Your task to perform on an android device: turn off data saver in the chrome app Image 0: 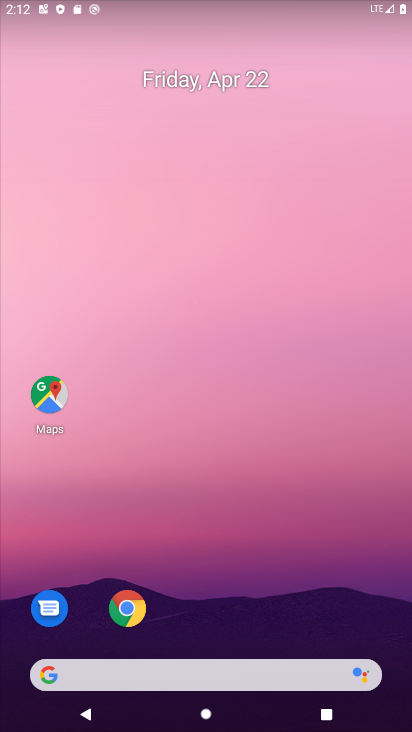
Step 0: drag from (236, 659) to (228, 244)
Your task to perform on an android device: turn off data saver in the chrome app Image 1: 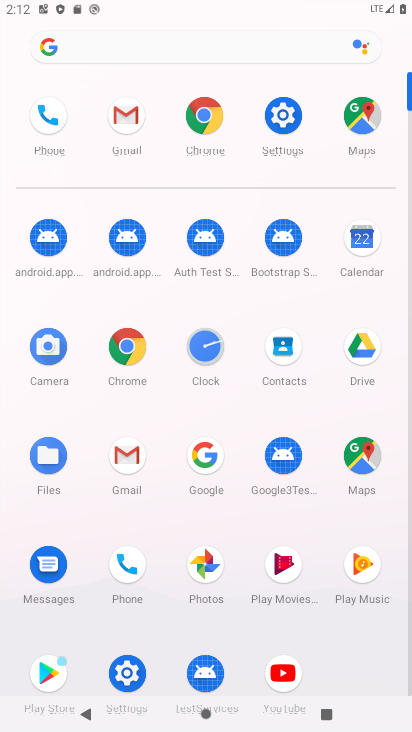
Step 1: click (132, 335)
Your task to perform on an android device: turn off data saver in the chrome app Image 2: 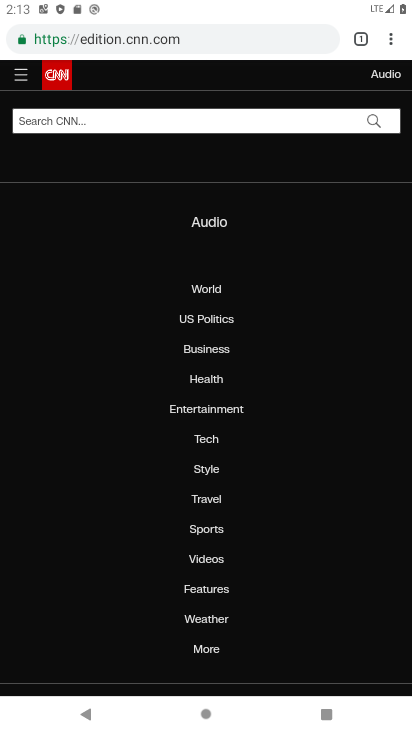
Step 2: click (384, 42)
Your task to perform on an android device: turn off data saver in the chrome app Image 3: 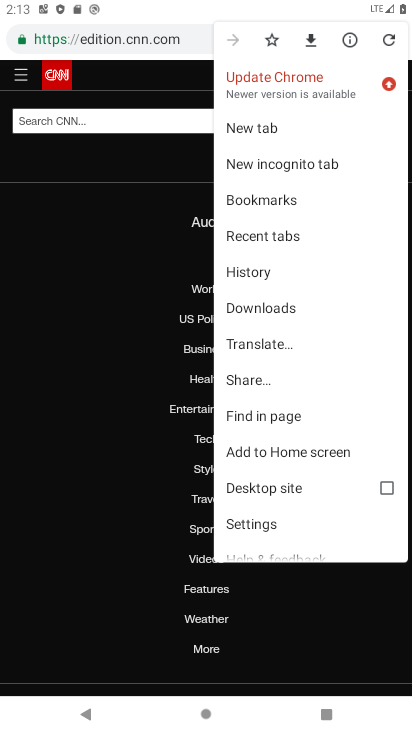
Step 3: click (248, 518)
Your task to perform on an android device: turn off data saver in the chrome app Image 4: 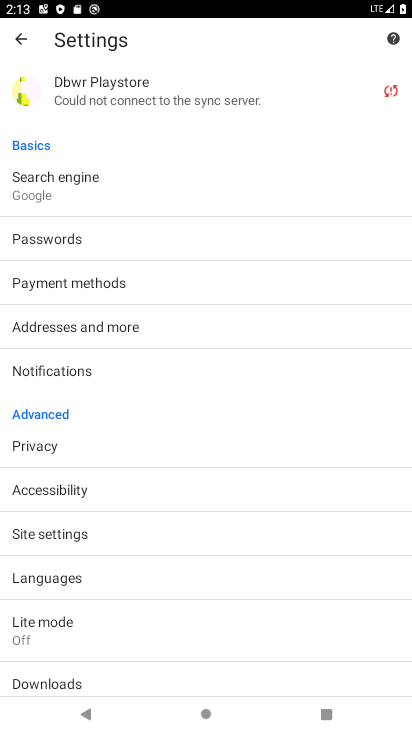
Step 4: click (66, 623)
Your task to perform on an android device: turn off data saver in the chrome app Image 5: 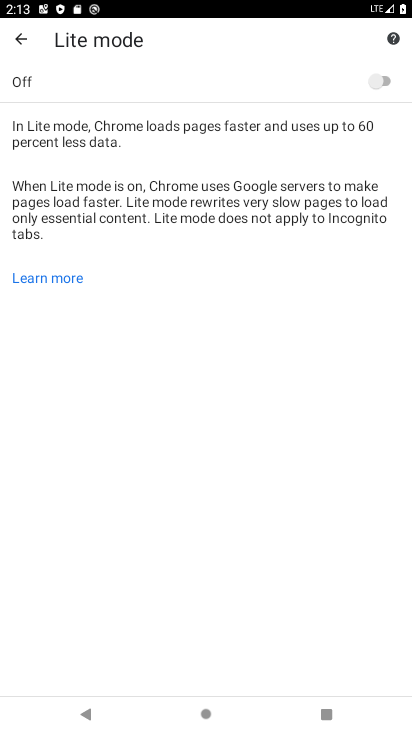
Step 5: click (375, 94)
Your task to perform on an android device: turn off data saver in the chrome app Image 6: 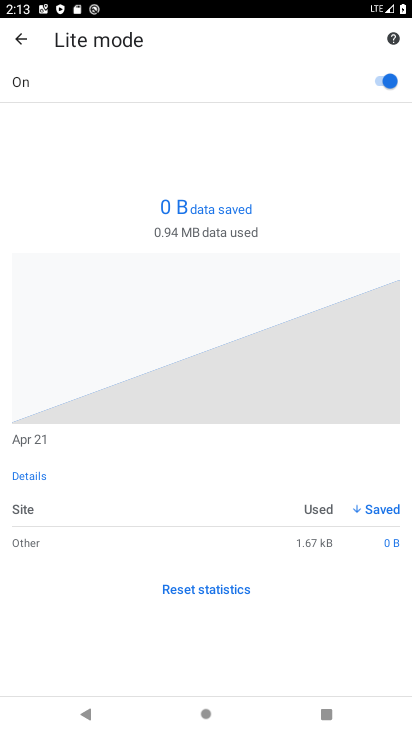
Step 6: click (370, 95)
Your task to perform on an android device: turn off data saver in the chrome app Image 7: 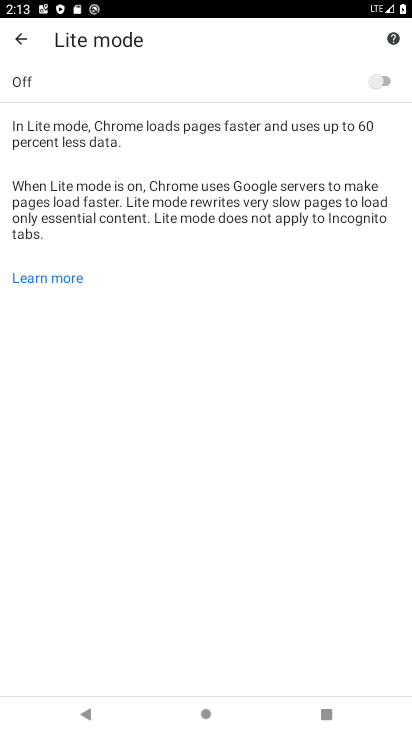
Step 7: task complete